Your task to perform on an android device: check storage Image 0: 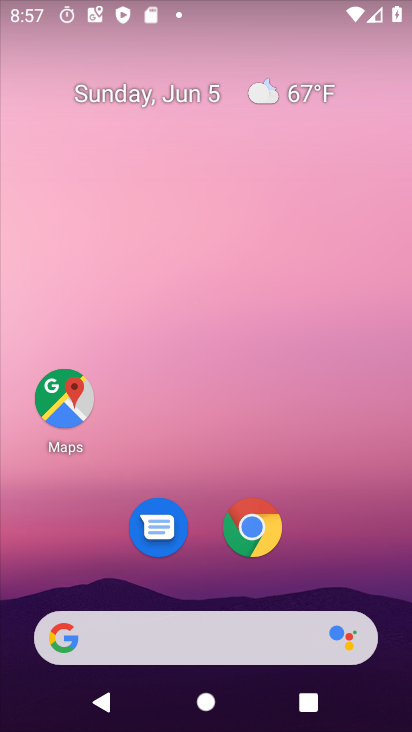
Step 0: drag from (228, 715) to (193, 0)
Your task to perform on an android device: check storage Image 1: 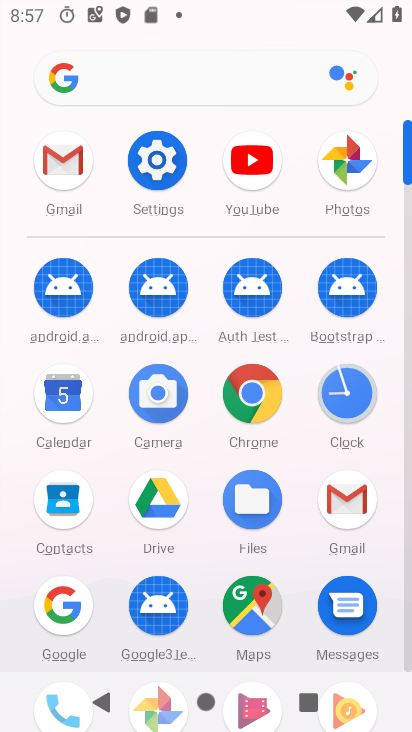
Step 1: click (157, 164)
Your task to perform on an android device: check storage Image 2: 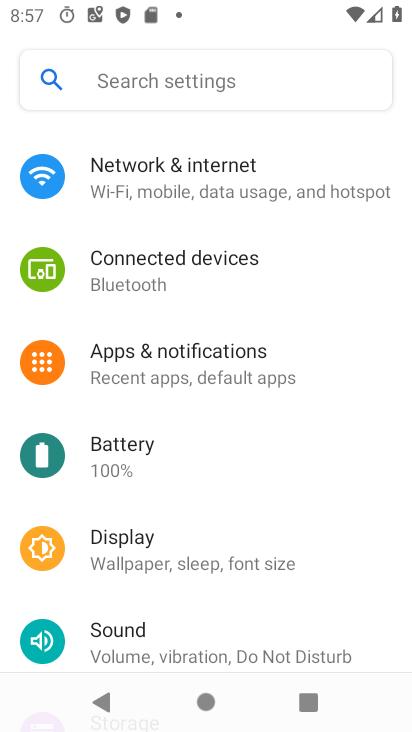
Step 2: drag from (138, 575) to (141, 224)
Your task to perform on an android device: check storage Image 3: 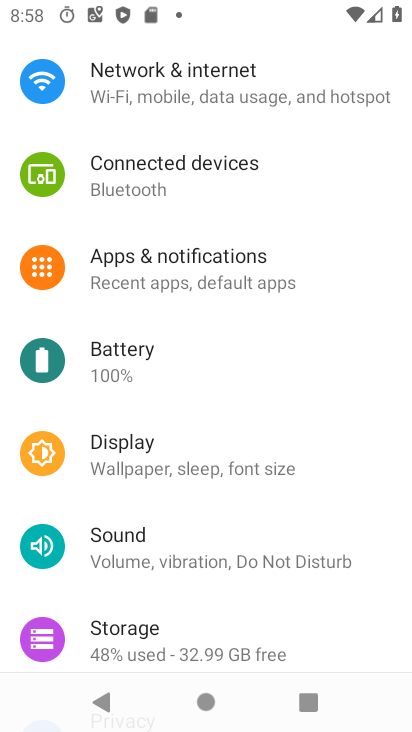
Step 3: click (124, 632)
Your task to perform on an android device: check storage Image 4: 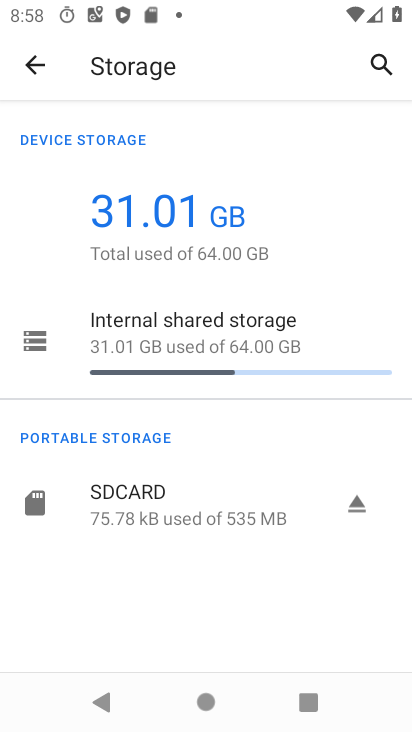
Step 4: task complete